Your task to perform on an android device: Go to settings Image 0: 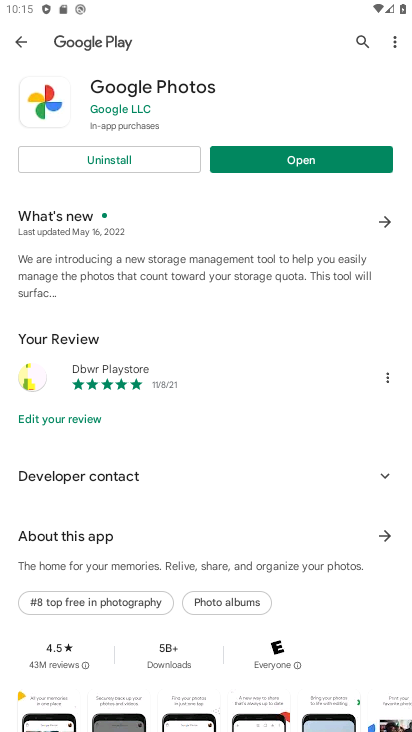
Step 0: press home button
Your task to perform on an android device: Go to settings Image 1: 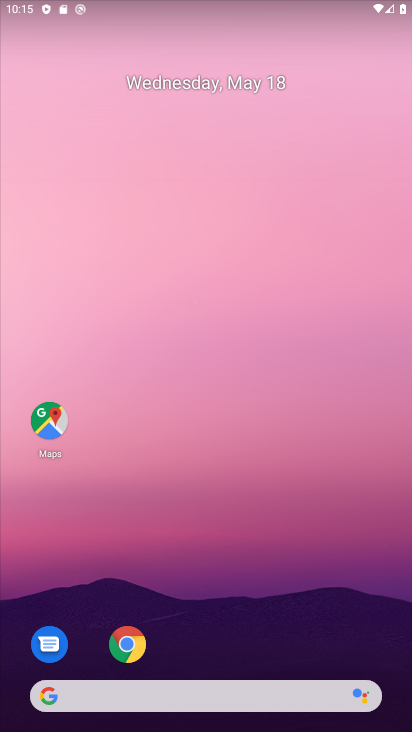
Step 1: drag from (378, 655) to (370, 156)
Your task to perform on an android device: Go to settings Image 2: 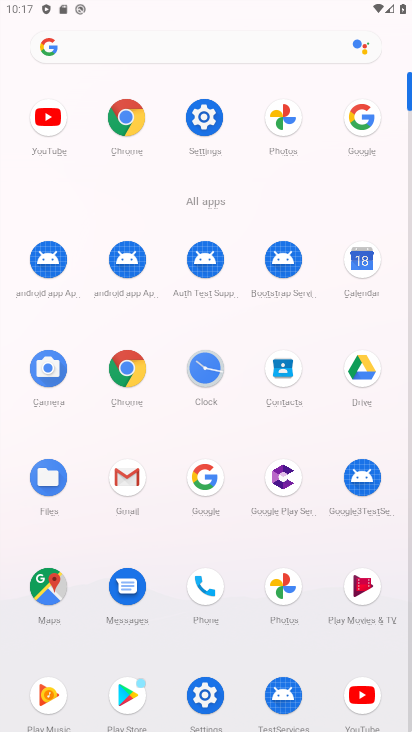
Step 2: click (202, 681)
Your task to perform on an android device: Go to settings Image 3: 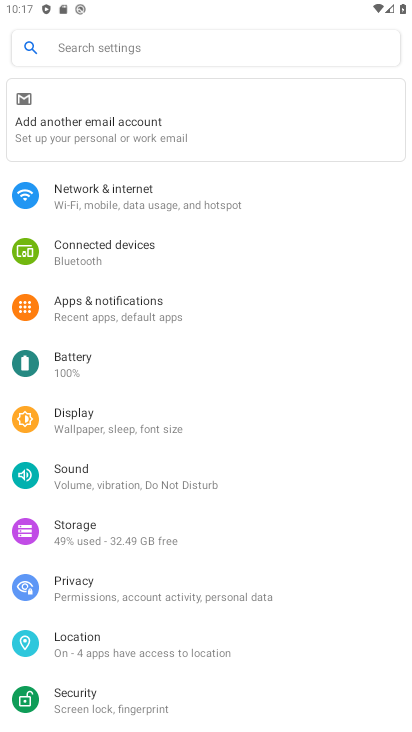
Step 3: task complete